Your task to perform on an android device: visit the assistant section in the google photos Image 0: 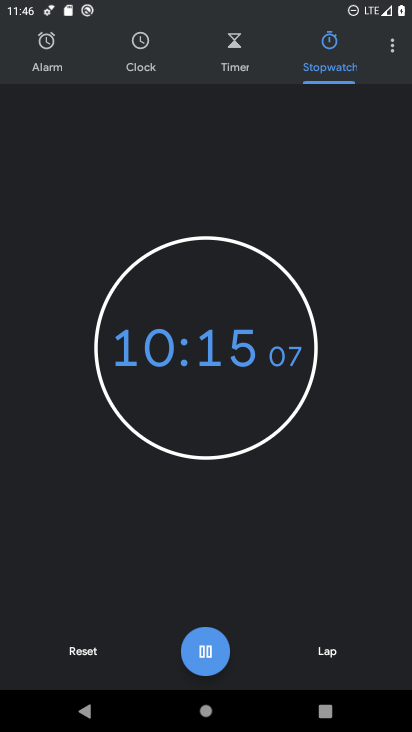
Step 0: press home button
Your task to perform on an android device: visit the assistant section in the google photos Image 1: 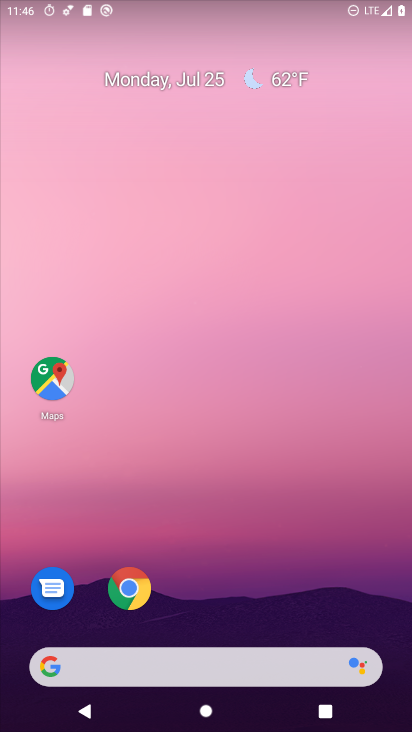
Step 1: drag from (128, 729) to (261, 182)
Your task to perform on an android device: visit the assistant section in the google photos Image 2: 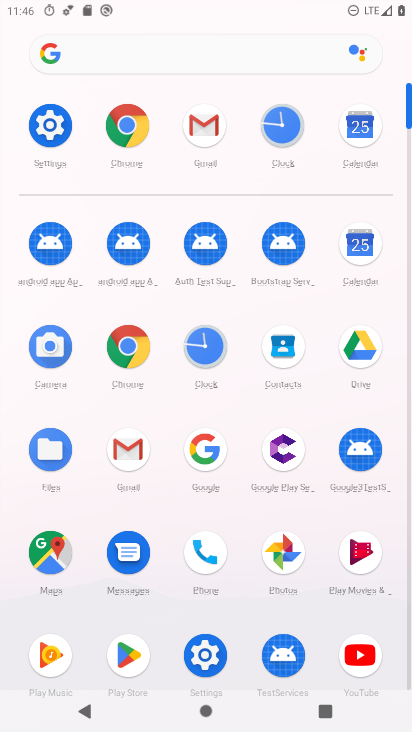
Step 2: click (295, 543)
Your task to perform on an android device: visit the assistant section in the google photos Image 3: 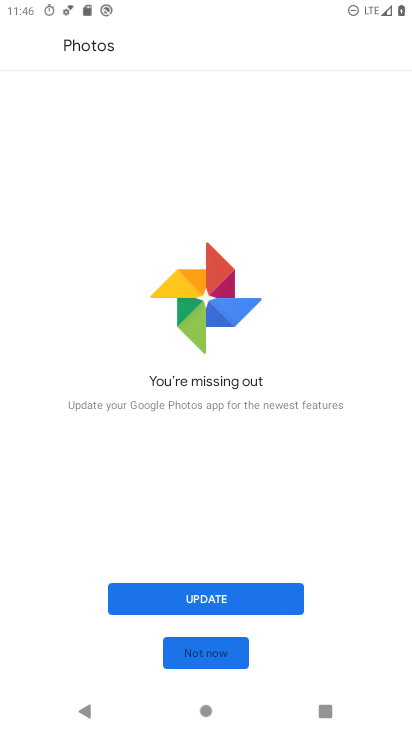
Step 3: click (214, 659)
Your task to perform on an android device: visit the assistant section in the google photos Image 4: 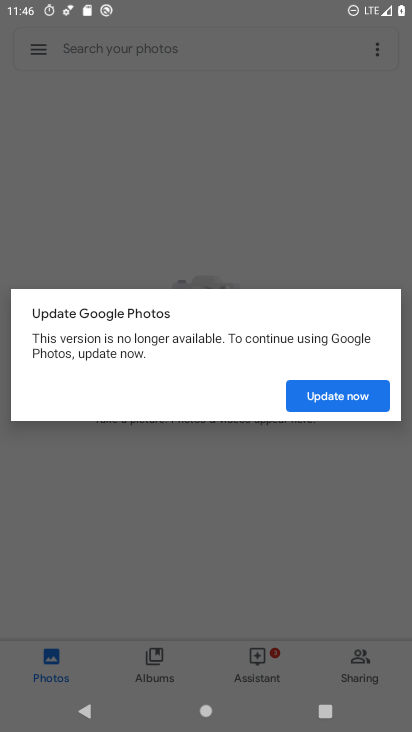
Step 4: click (333, 398)
Your task to perform on an android device: visit the assistant section in the google photos Image 5: 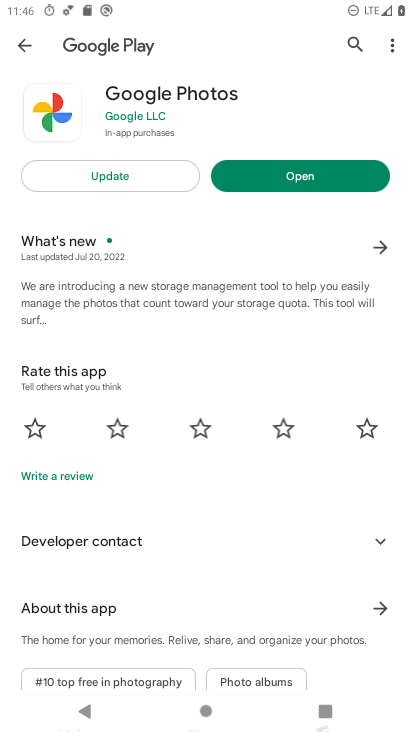
Step 5: click (341, 163)
Your task to perform on an android device: visit the assistant section in the google photos Image 6: 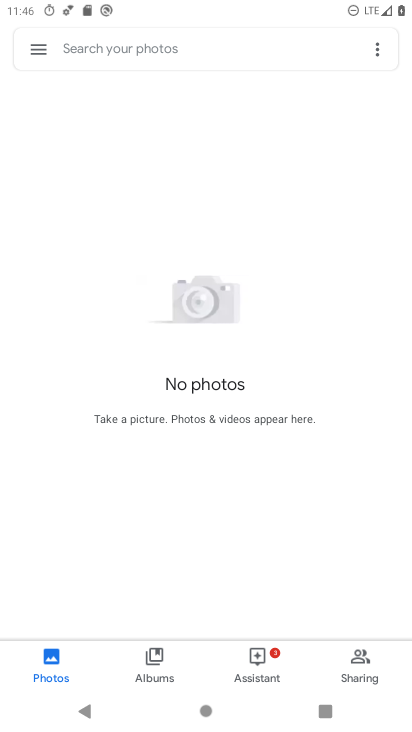
Step 6: click (176, 44)
Your task to perform on an android device: visit the assistant section in the google photos Image 7: 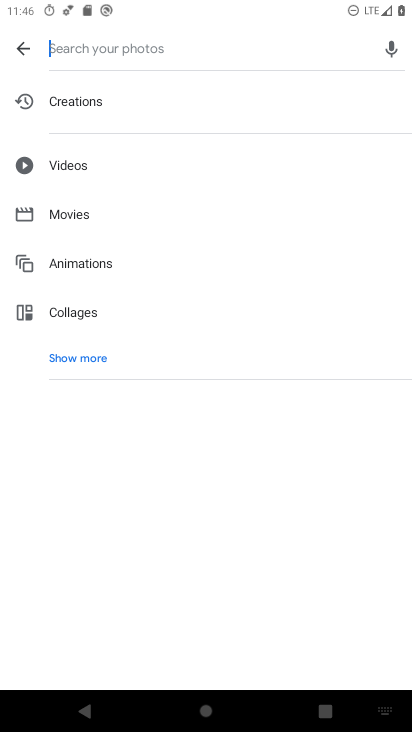
Step 7: click (89, 360)
Your task to perform on an android device: visit the assistant section in the google photos Image 8: 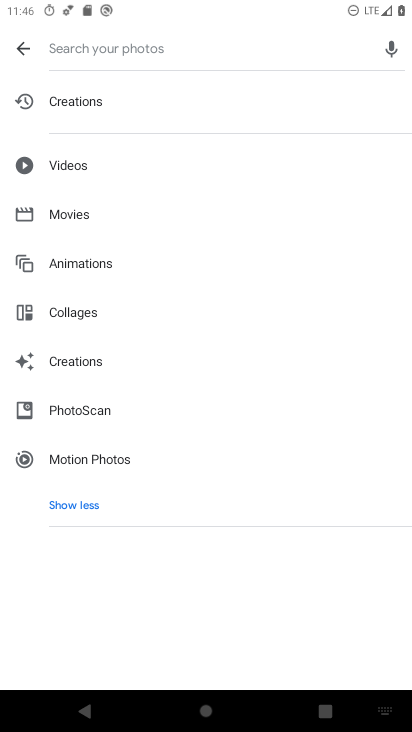
Step 8: click (80, 367)
Your task to perform on an android device: visit the assistant section in the google photos Image 9: 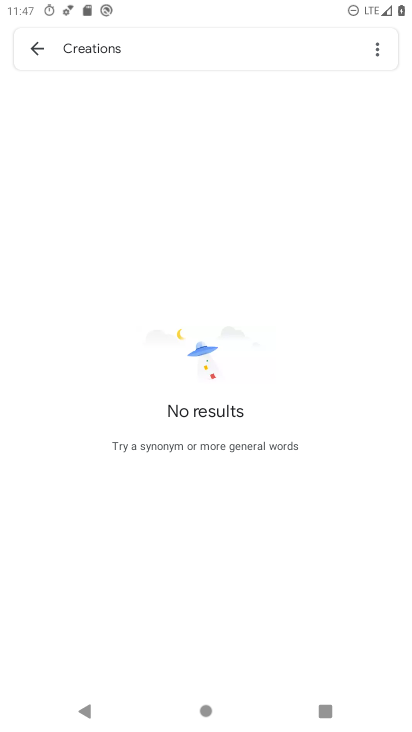
Step 9: click (40, 48)
Your task to perform on an android device: visit the assistant section in the google photos Image 10: 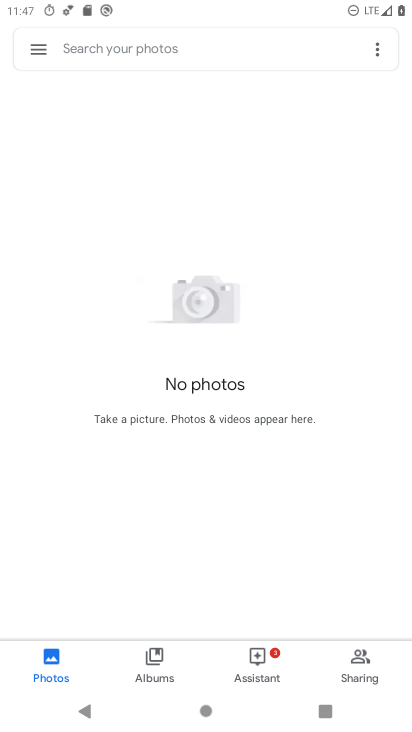
Step 10: click (261, 651)
Your task to perform on an android device: visit the assistant section in the google photos Image 11: 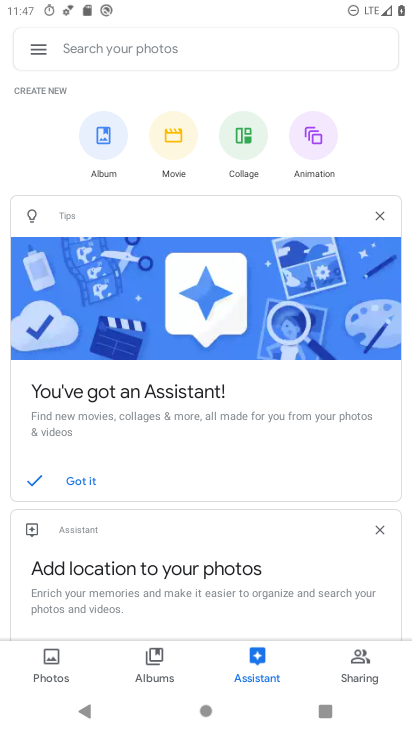
Step 11: task complete